Your task to perform on an android device: turn on translation in the chrome app Image 0: 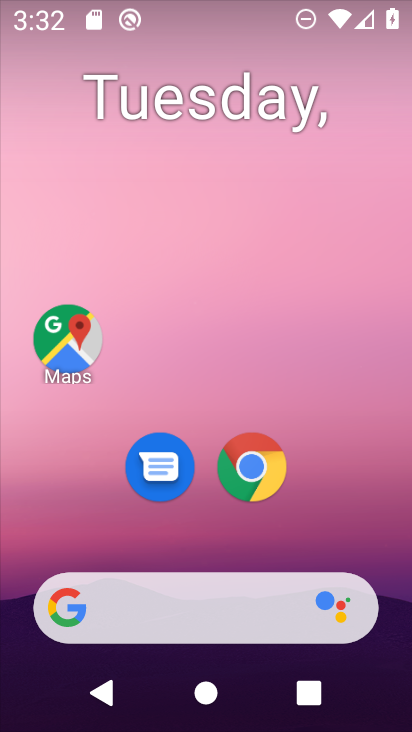
Step 0: click (237, 468)
Your task to perform on an android device: turn on translation in the chrome app Image 1: 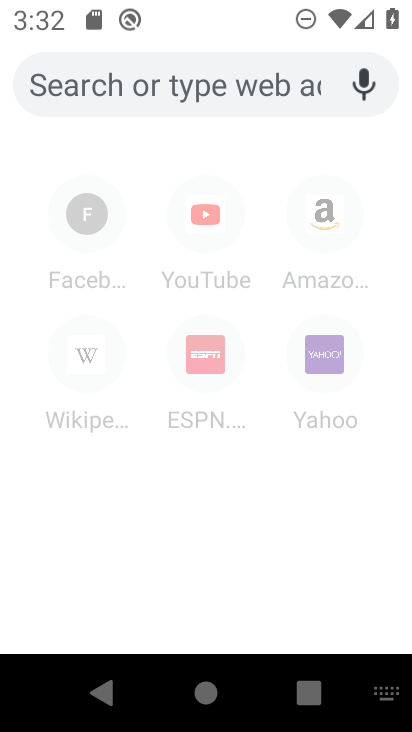
Step 1: click (281, 240)
Your task to perform on an android device: turn on translation in the chrome app Image 2: 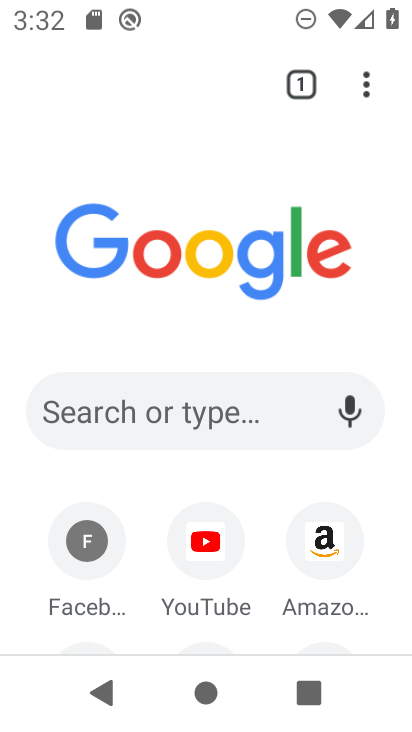
Step 2: click (357, 93)
Your task to perform on an android device: turn on translation in the chrome app Image 3: 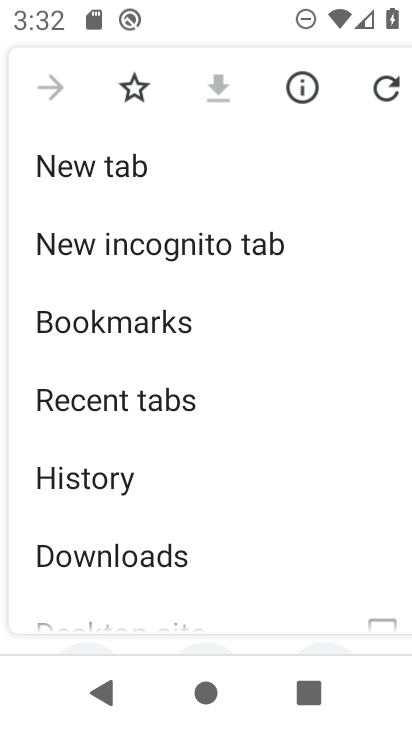
Step 3: drag from (177, 521) to (159, 139)
Your task to perform on an android device: turn on translation in the chrome app Image 4: 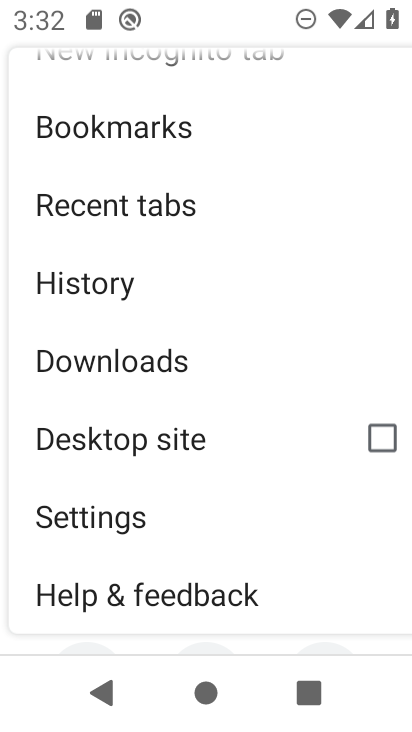
Step 4: click (65, 520)
Your task to perform on an android device: turn on translation in the chrome app Image 5: 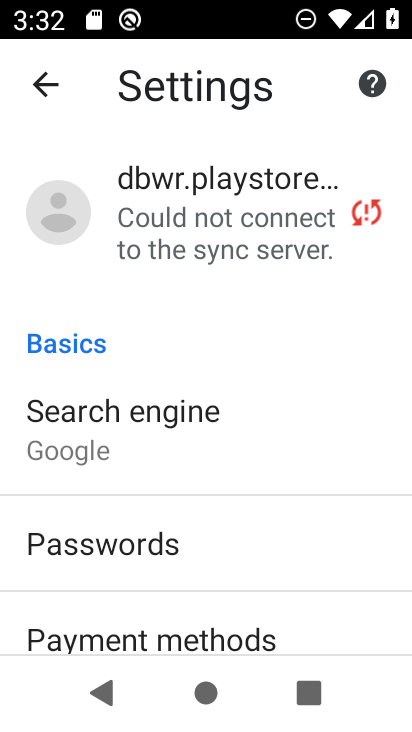
Step 5: drag from (136, 585) to (118, 100)
Your task to perform on an android device: turn on translation in the chrome app Image 6: 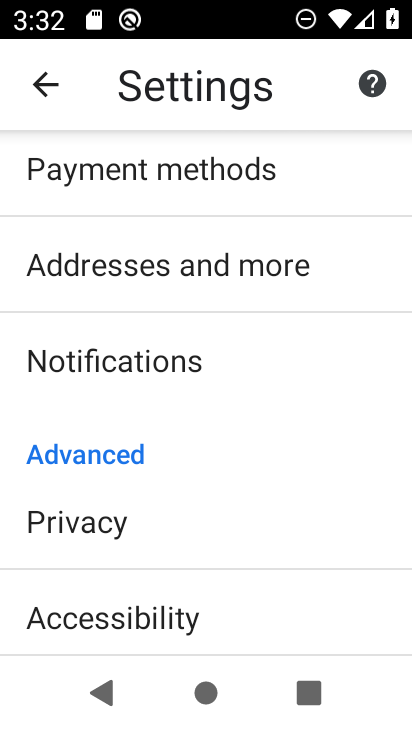
Step 6: drag from (197, 539) to (150, 145)
Your task to perform on an android device: turn on translation in the chrome app Image 7: 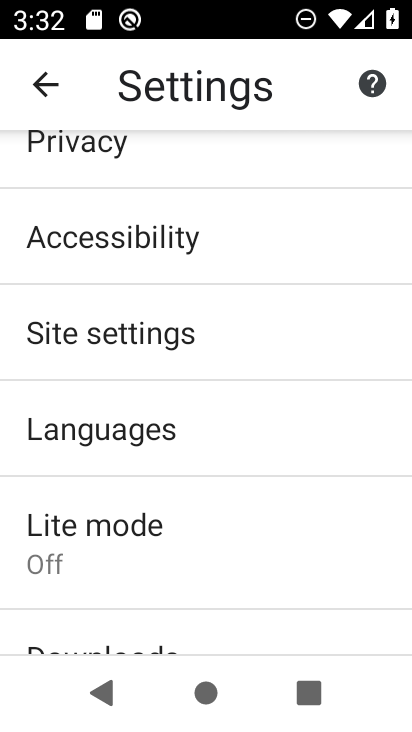
Step 7: click (161, 438)
Your task to perform on an android device: turn on translation in the chrome app Image 8: 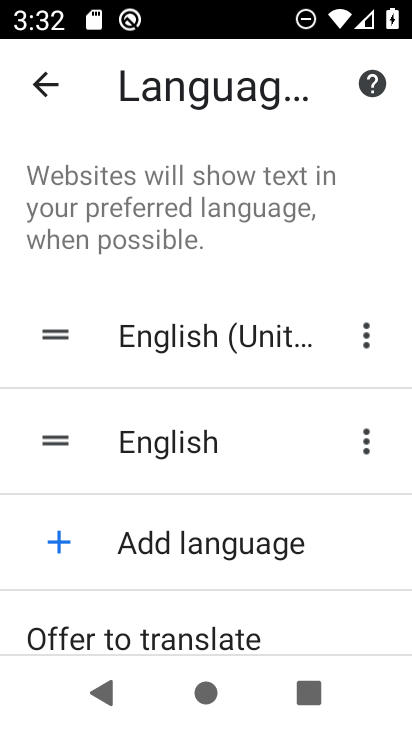
Step 8: task complete